Your task to perform on an android device: Open settings on Google Maps Image 0: 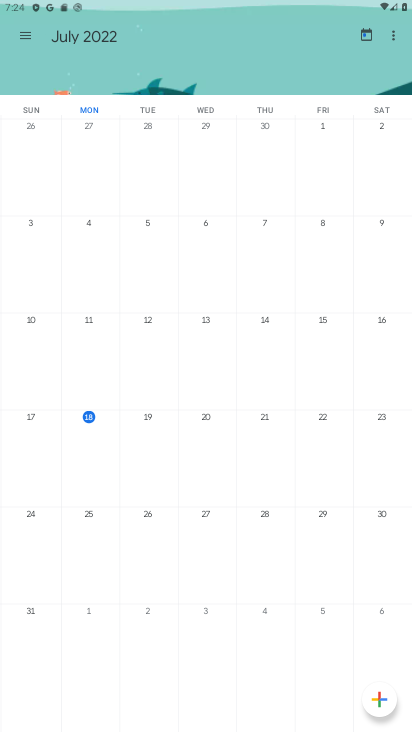
Step 0: press home button
Your task to perform on an android device: Open settings on Google Maps Image 1: 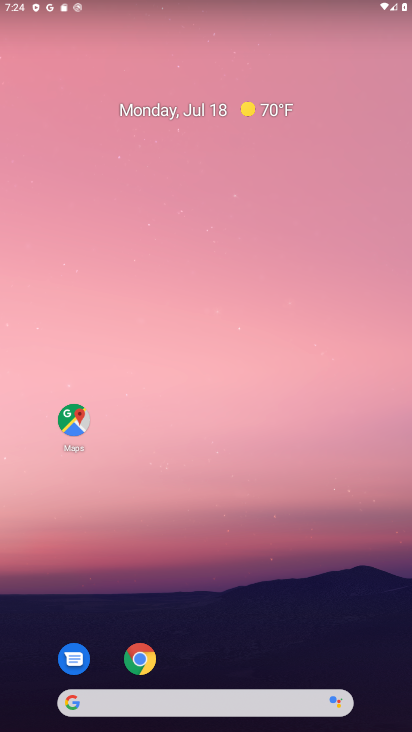
Step 1: click (71, 420)
Your task to perform on an android device: Open settings on Google Maps Image 2: 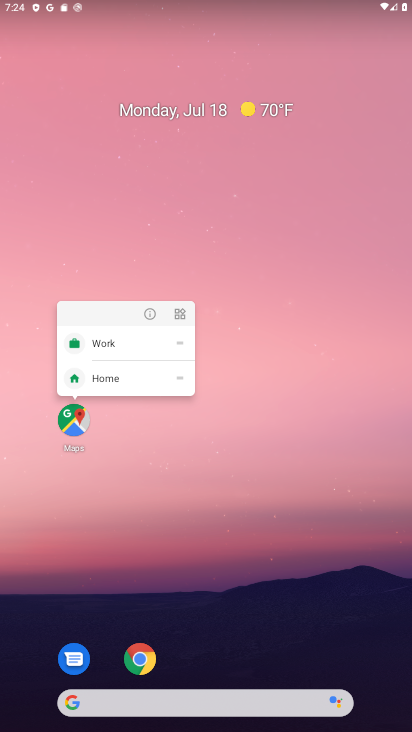
Step 2: click (73, 423)
Your task to perform on an android device: Open settings on Google Maps Image 3: 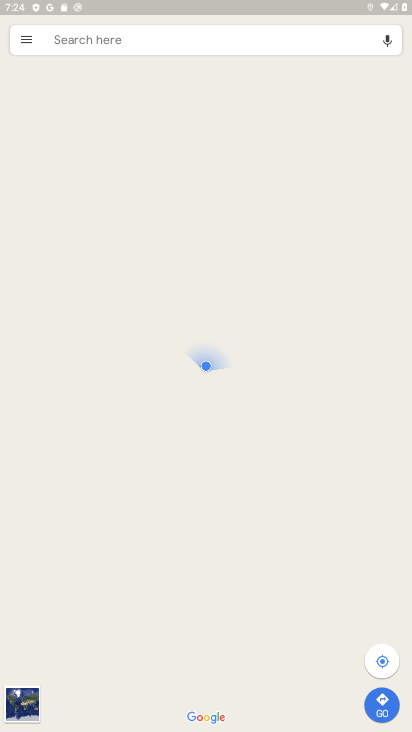
Step 3: click (20, 39)
Your task to perform on an android device: Open settings on Google Maps Image 4: 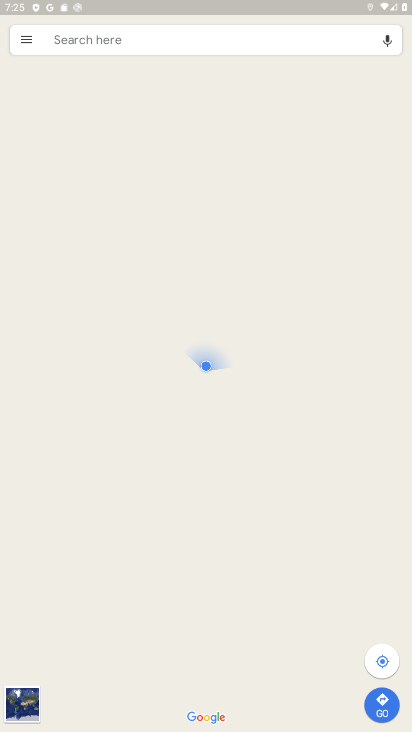
Step 4: click (31, 33)
Your task to perform on an android device: Open settings on Google Maps Image 5: 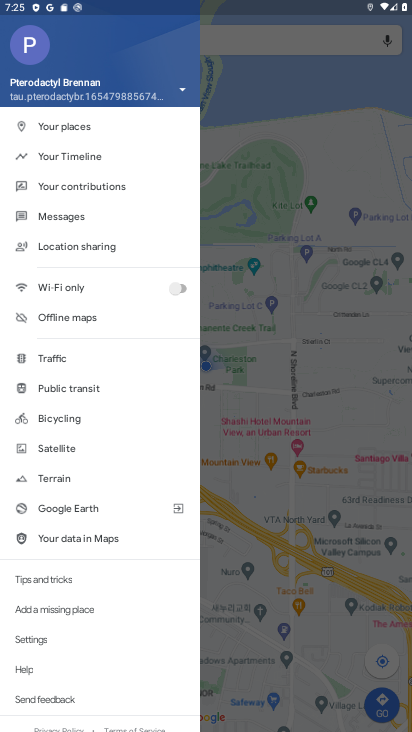
Step 5: click (40, 641)
Your task to perform on an android device: Open settings on Google Maps Image 6: 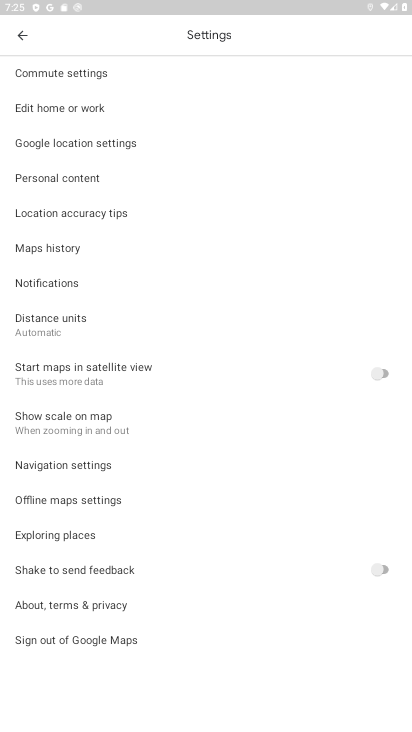
Step 6: task complete